Your task to perform on an android device: Play the last video I watched on Youtube Image 0: 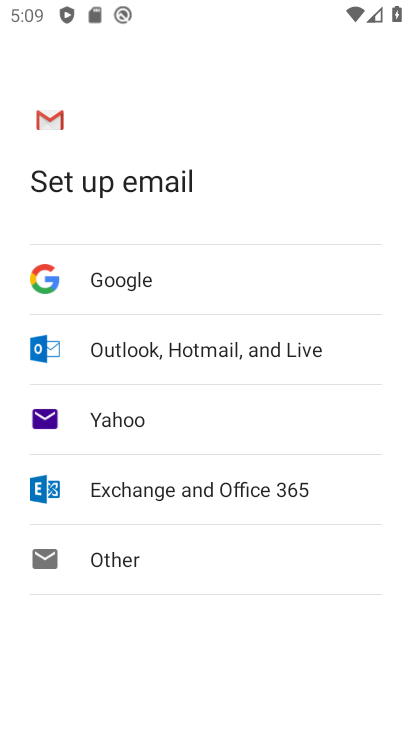
Step 0: press home button
Your task to perform on an android device: Play the last video I watched on Youtube Image 1: 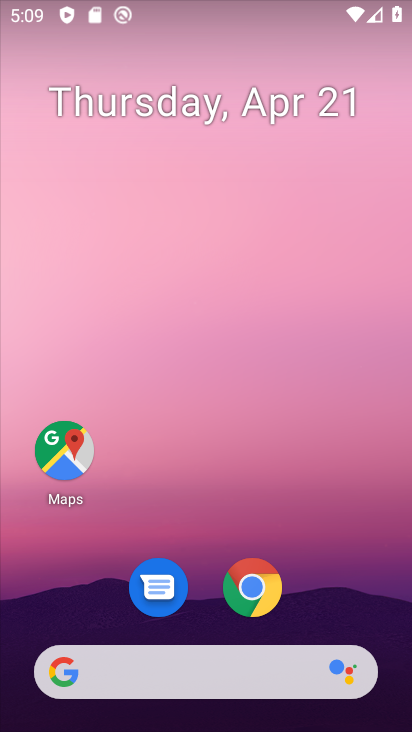
Step 1: drag from (203, 624) to (196, 41)
Your task to perform on an android device: Play the last video I watched on Youtube Image 2: 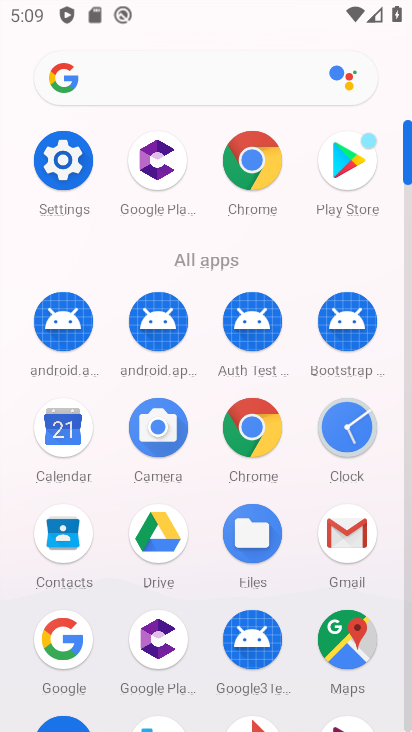
Step 2: drag from (297, 600) to (292, 155)
Your task to perform on an android device: Play the last video I watched on Youtube Image 3: 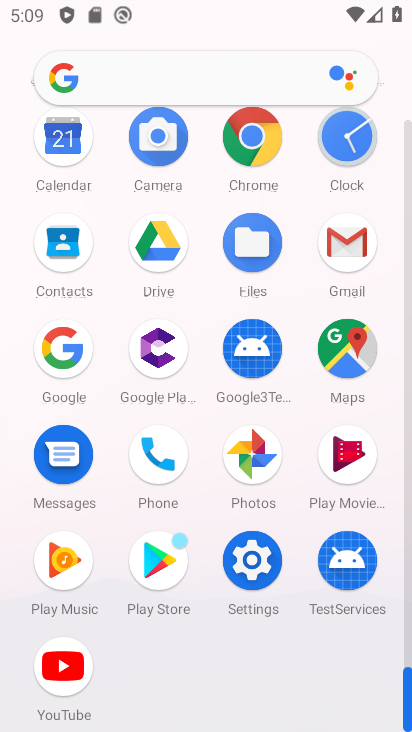
Step 3: click (58, 661)
Your task to perform on an android device: Play the last video I watched on Youtube Image 4: 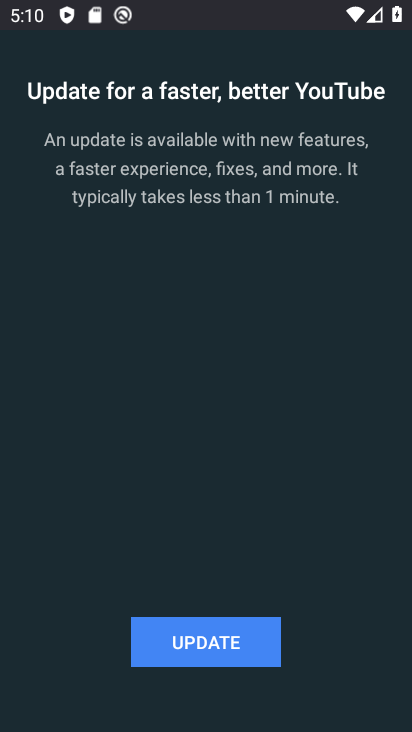
Step 4: click (211, 644)
Your task to perform on an android device: Play the last video I watched on Youtube Image 5: 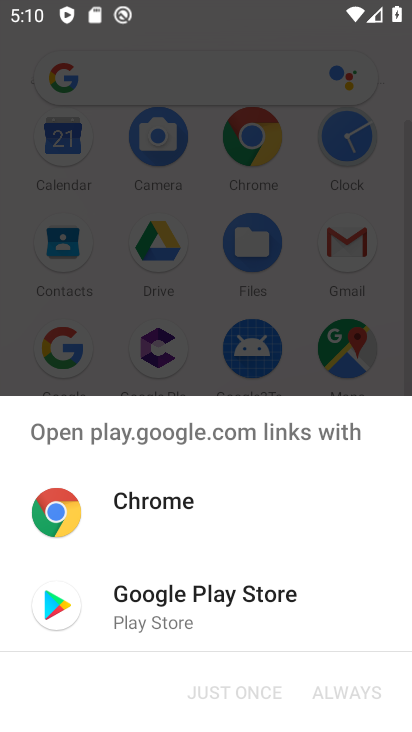
Step 5: click (130, 613)
Your task to perform on an android device: Play the last video I watched on Youtube Image 6: 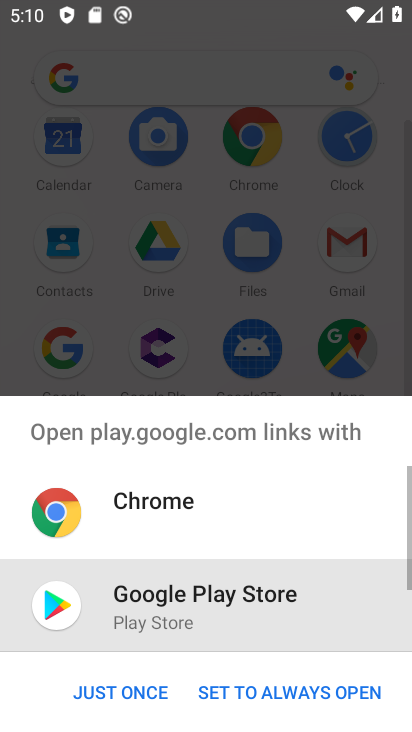
Step 6: click (124, 700)
Your task to perform on an android device: Play the last video I watched on Youtube Image 7: 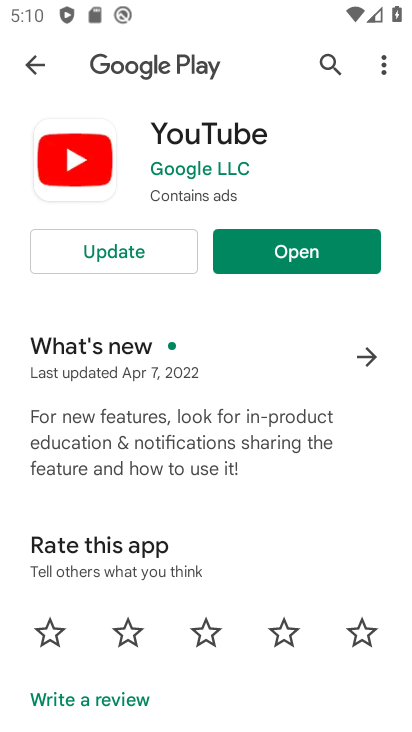
Step 7: click (117, 249)
Your task to perform on an android device: Play the last video I watched on Youtube Image 8: 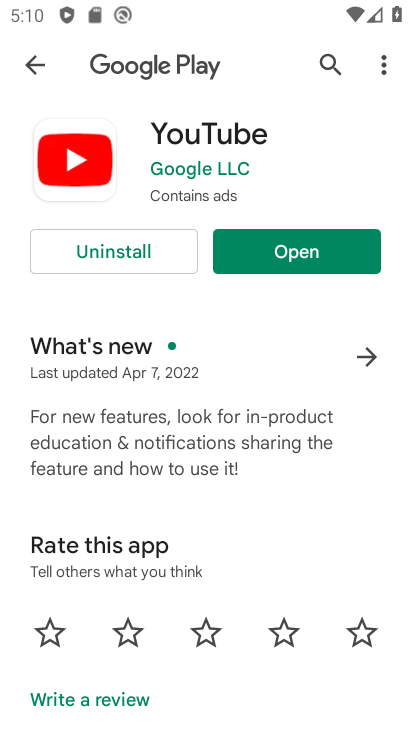
Step 8: click (302, 257)
Your task to perform on an android device: Play the last video I watched on Youtube Image 9: 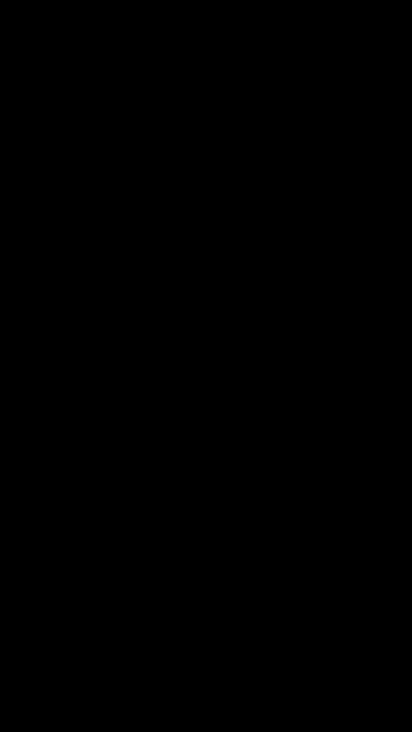
Step 9: task complete